Your task to perform on an android device: open app "Microsoft Outlook" Image 0: 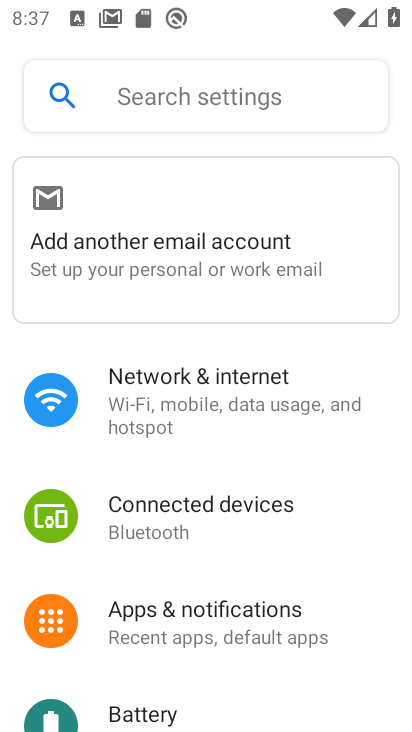
Step 0: press home button
Your task to perform on an android device: open app "Microsoft Outlook" Image 1: 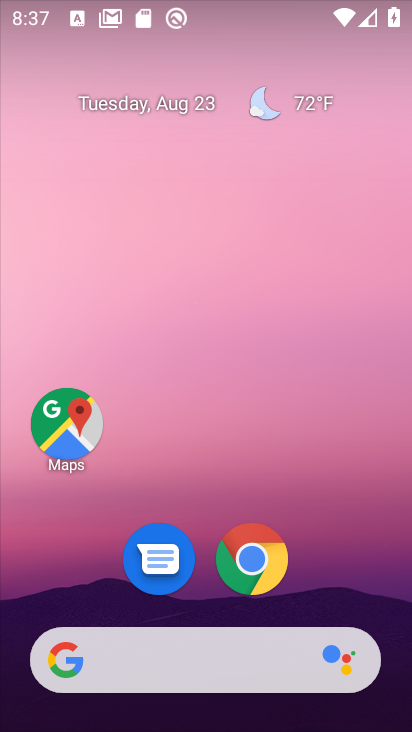
Step 1: drag from (205, 488) to (289, 26)
Your task to perform on an android device: open app "Microsoft Outlook" Image 2: 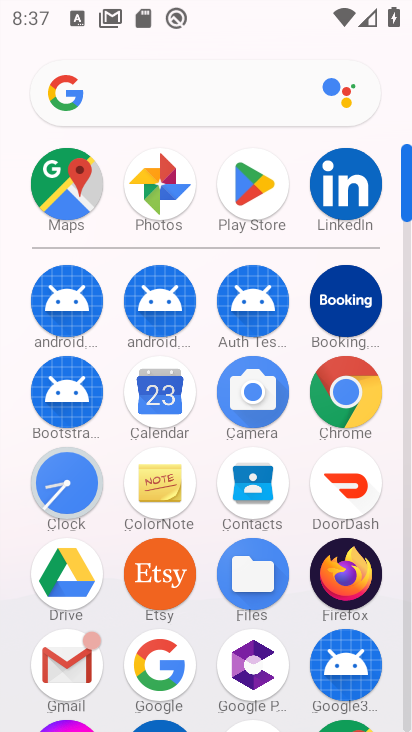
Step 2: click (247, 170)
Your task to perform on an android device: open app "Microsoft Outlook" Image 3: 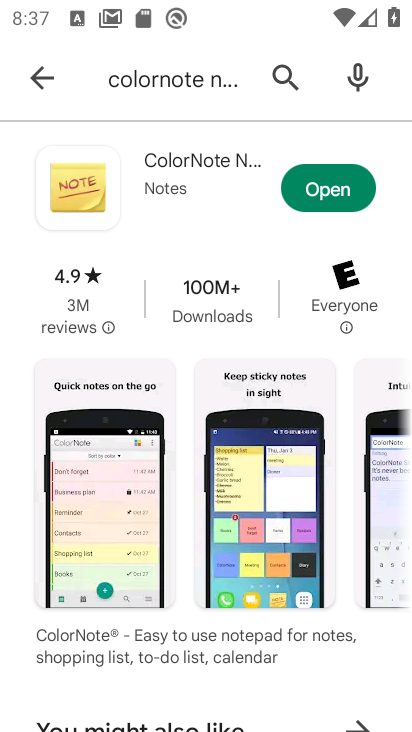
Step 3: click (289, 76)
Your task to perform on an android device: open app "Microsoft Outlook" Image 4: 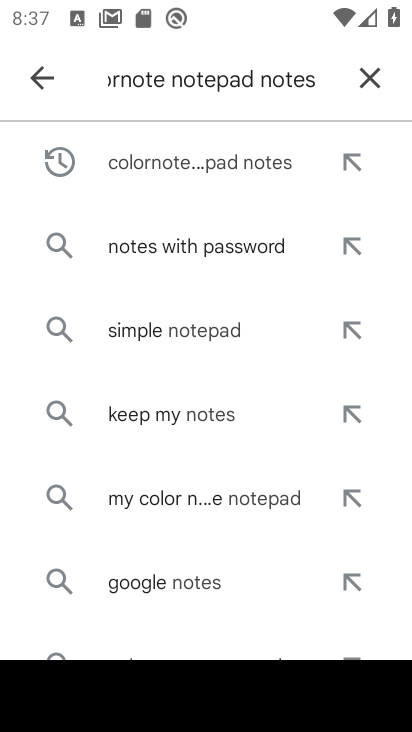
Step 4: click (371, 77)
Your task to perform on an android device: open app "Microsoft Outlook" Image 5: 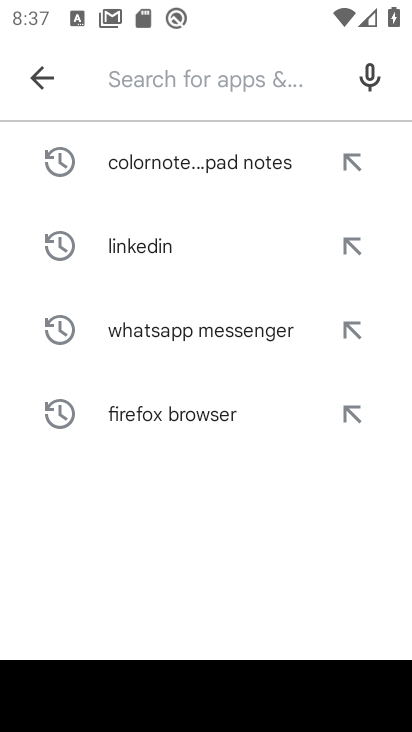
Step 5: type "Microsoft Outloo"
Your task to perform on an android device: open app "Microsoft Outlook" Image 6: 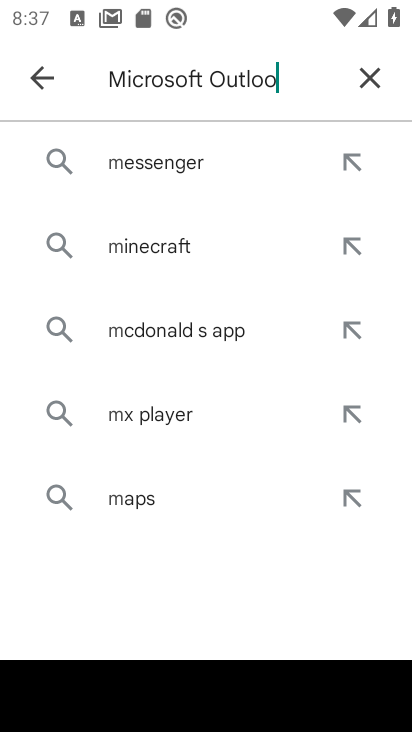
Step 6: type ""
Your task to perform on an android device: open app "Microsoft Outlook" Image 7: 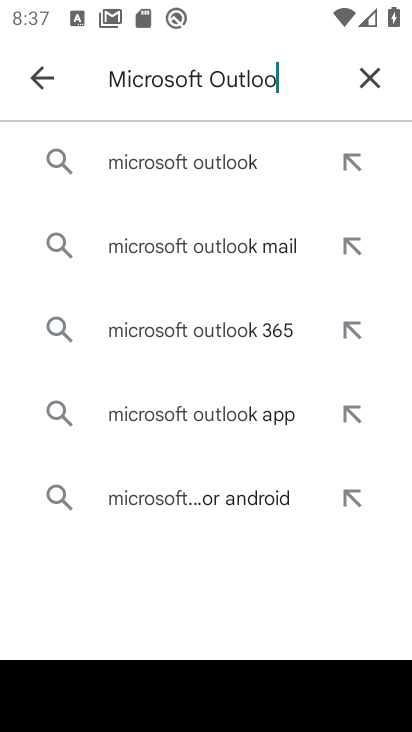
Step 7: click (164, 152)
Your task to perform on an android device: open app "Microsoft Outlook" Image 8: 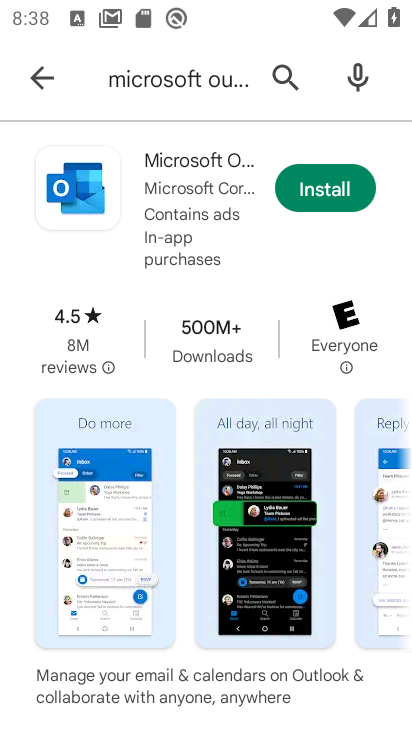
Step 8: task complete